Your task to perform on an android device: clear history in the chrome app Image 0: 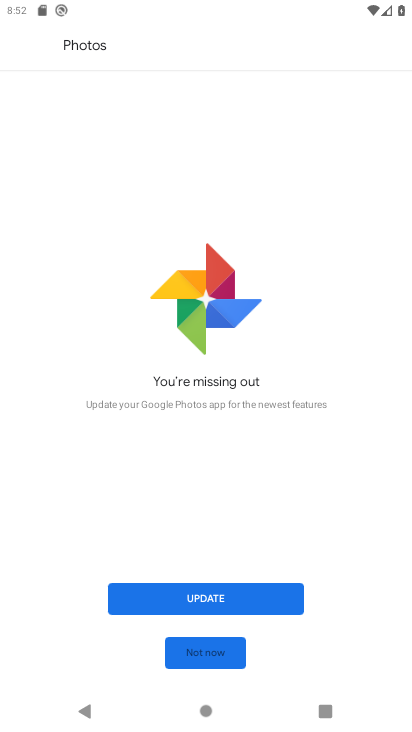
Step 0: press home button
Your task to perform on an android device: clear history in the chrome app Image 1: 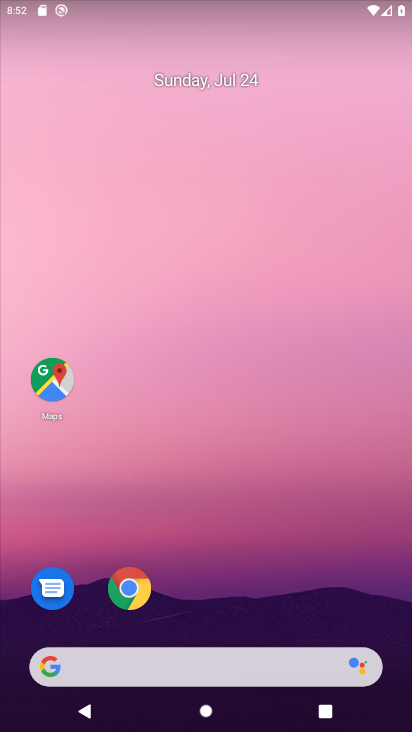
Step 1: drag from (400, 680) to (322, 192)
Your task to perform on an android device: clear history in the chrome app Image 2: 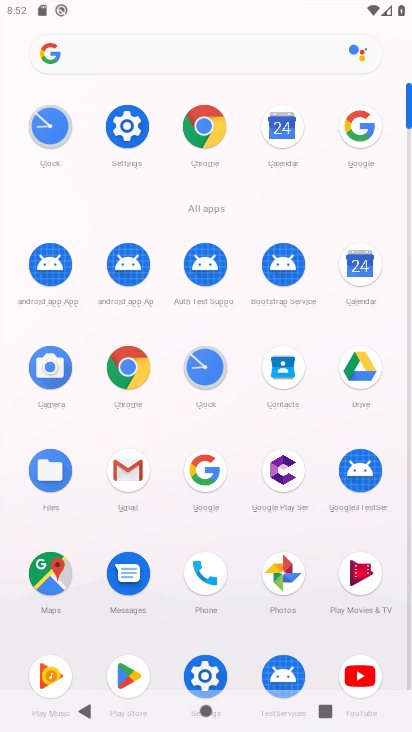
Step 2: click (134, 353)
Your task to perform on an android device: clear history in the chrome app Image 3: 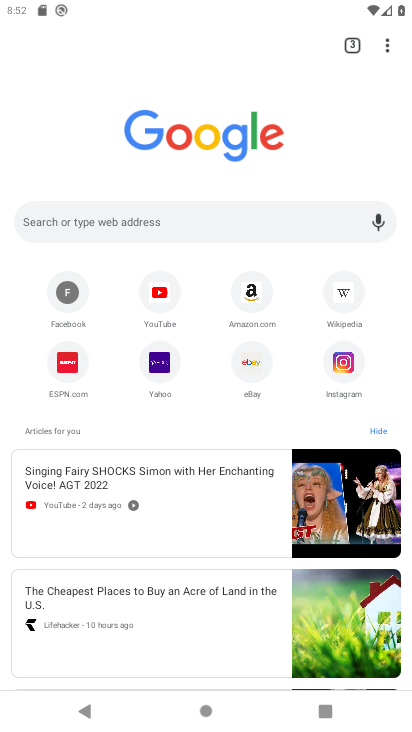
Step 3: click (389, 41)
Your task to perform on an android device: clear history in the chrome app Image 4: 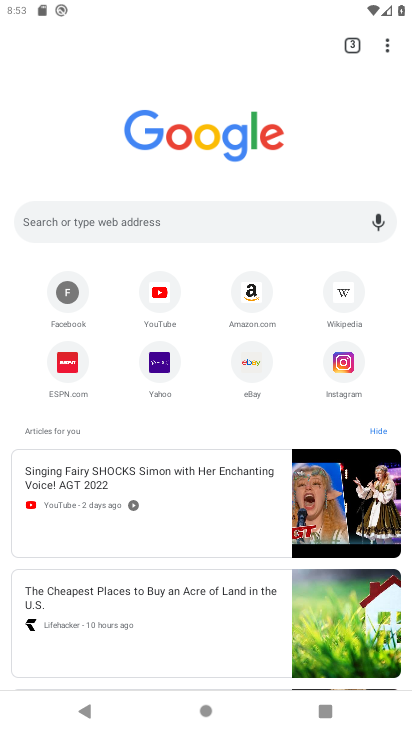
Step 4: click (384, 44)
Your task to perform on an android device: clear history in the chrome app Image 5: 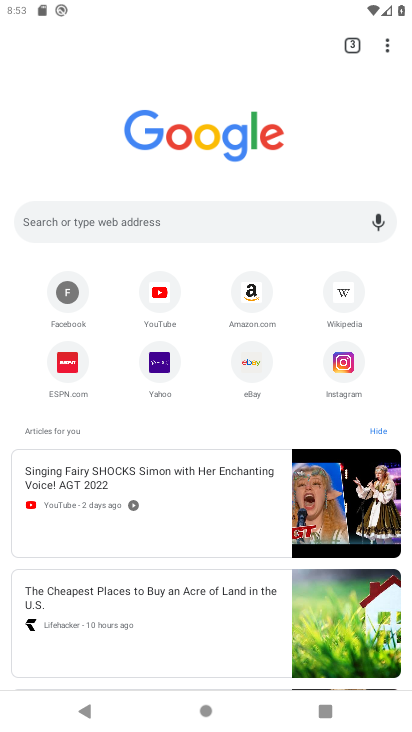
Step 5: click (384, 44)
Your task to perform on an android device: clear history in the chrome app Image 6: 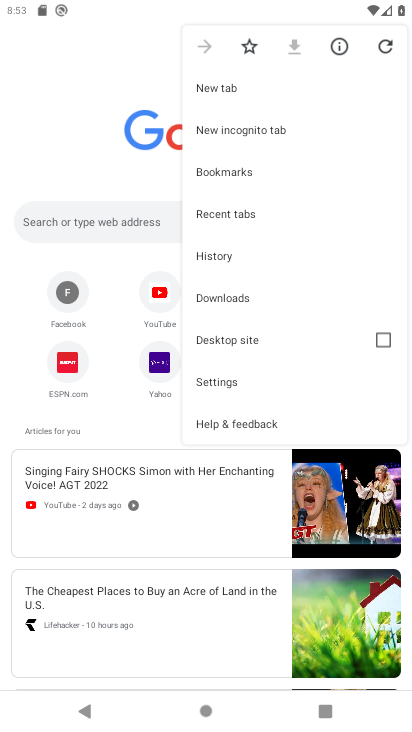
Step 6: click (218, 247)
Your task to perform on an android device: clear history in the chrome app Image 7: 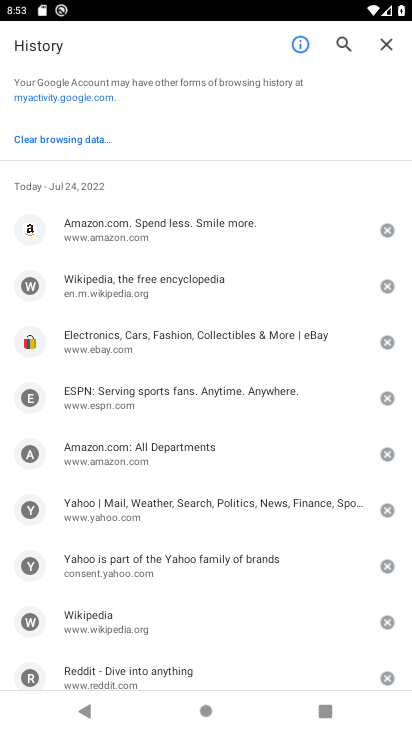
Step 7: click (85, 141)
Your task to perform on an android device: clear history in the chrome app Image 8: 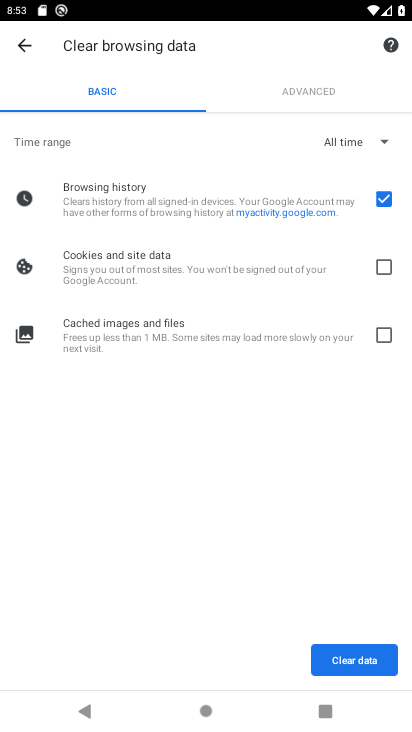
Step 8: click (355, 672)
Your task to perform on an android device: clear history in the chrome app Image 9: 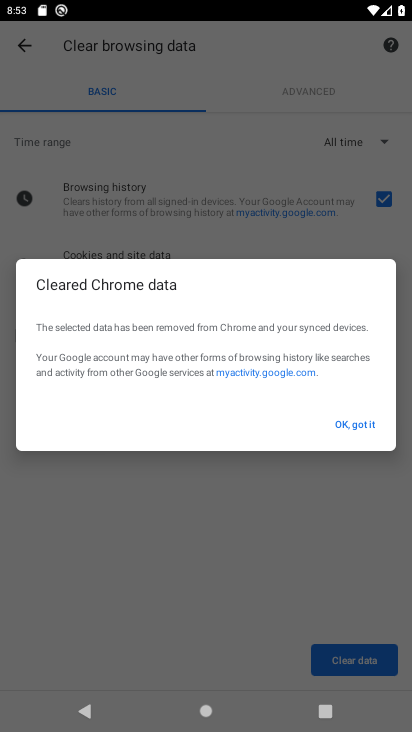
Step 9: click (348, 426)
Your task to perform on an android device: clear history in the chrome app Image 10: 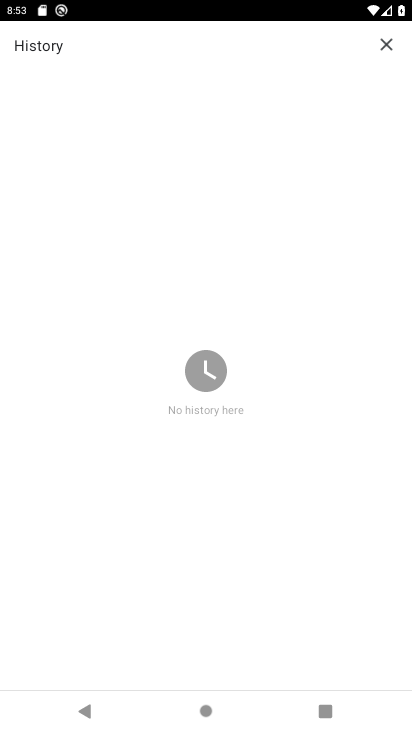
Step 10: task complete